Your task to perform on an android device: change the clock style Image 0: 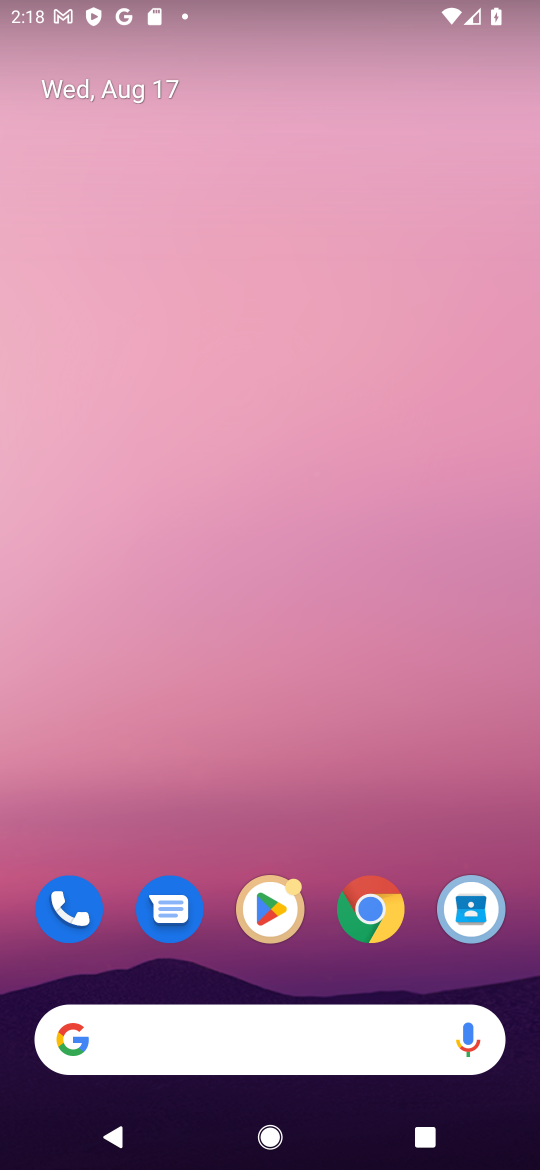
Step 0: press home button
Your task to perform on an android device: change the clock style Image 1: 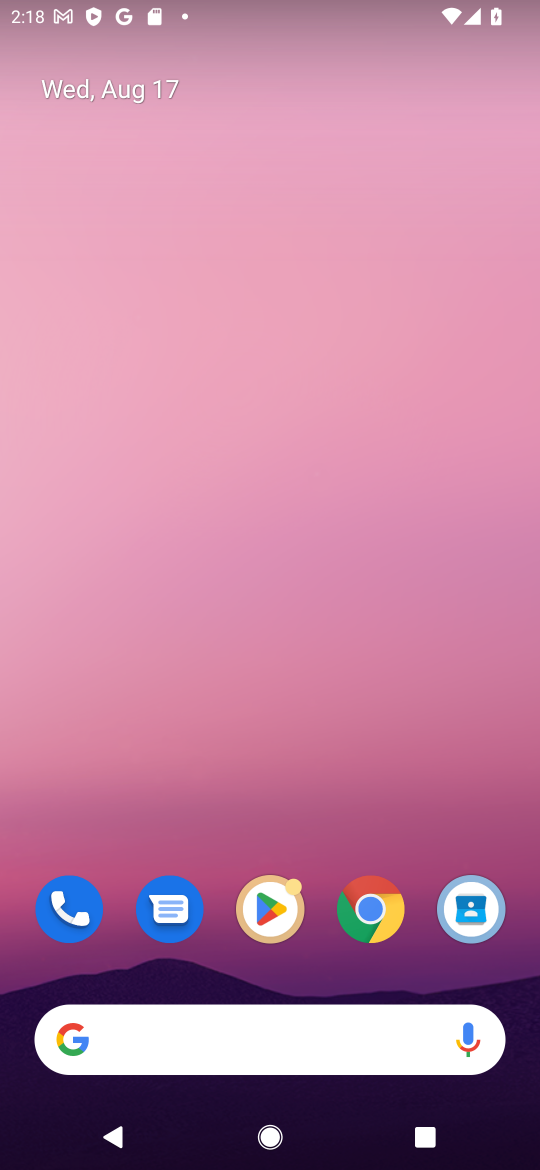
Step 1: task complete